Your task to perform on an android device: Search for Mexican restaurants on Maps Image 0: 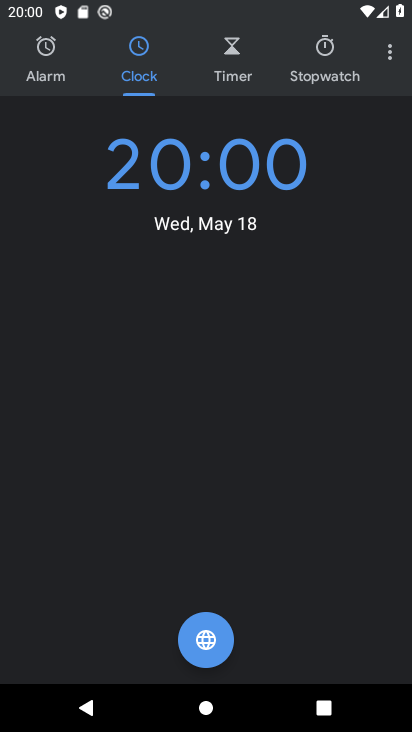
Step 0: press home button
Your task to perform on an android device: Search for Mexican restaurants on Maps Image 1: 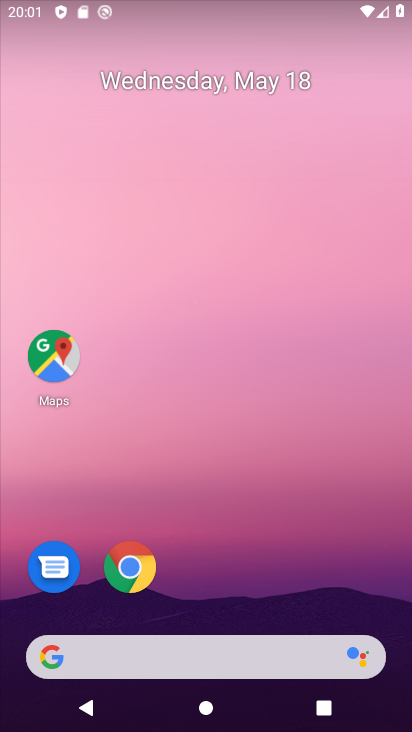
Step 1: click (81, 363)
Your task to perform on an android device: Search for Mexican restaurants on Maps Image 2: 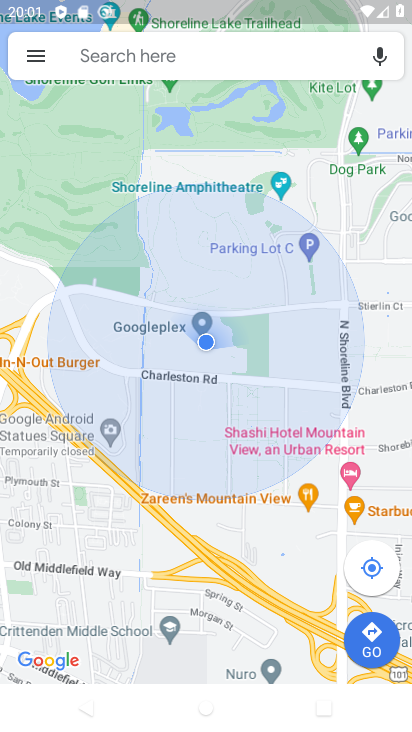
Step 2: click (165, 62)
Your task to perform on an android device: Search for Mexican restaurants on Maps Image 3: 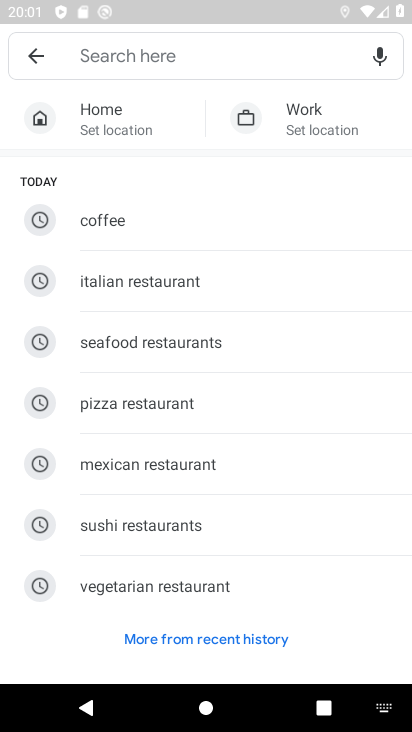
Step 3: type "Mexican restaurants"
Your task to perform on an android device: Search for Mexican restaurants on Maps Image 4: 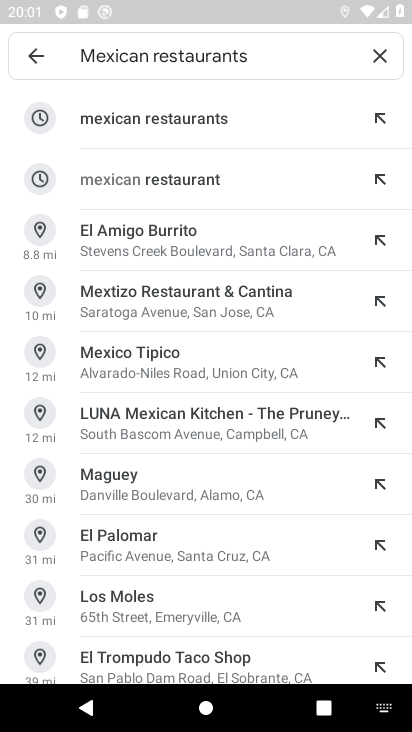
Step 4: click (204, 129)
Your task to perform on an android device: Search for Mexican restaurants on Maps Image 5: 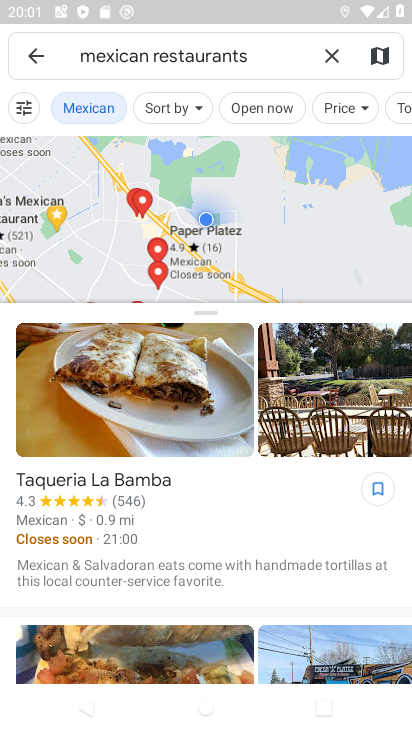
Step 5: task complete